Your task to perform on an android device: Search for "alienware aurora" on costco.com, select the first entry, add it to the cart, then select checkout. Image 0: 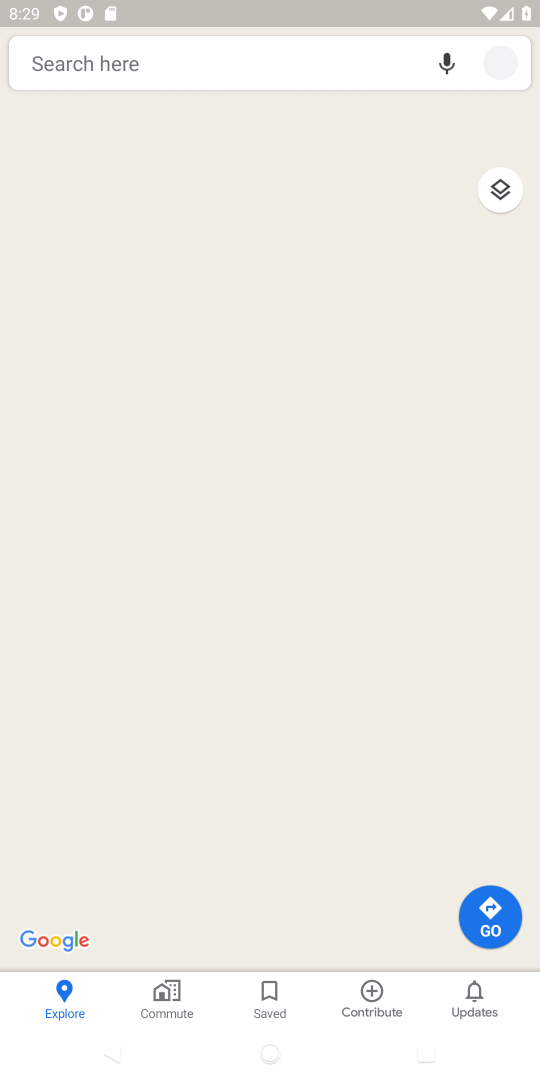
Step 0: press home button
Your task to perform on an android device: Search for "alienware aurora" on costco.com, select the first entry, add it to the cart, then select checkout. Image 1: 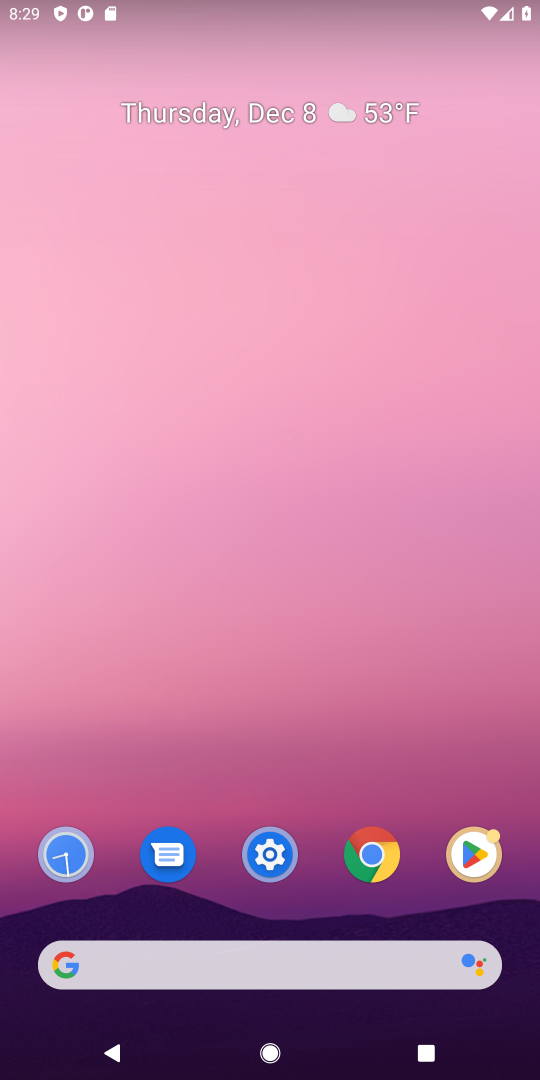
Step 1: press home button
Your task to perform on an android device: Search for "alienware aurora" on costco.com, select the first entry, add it to the cart, then select checkout. Image 2: 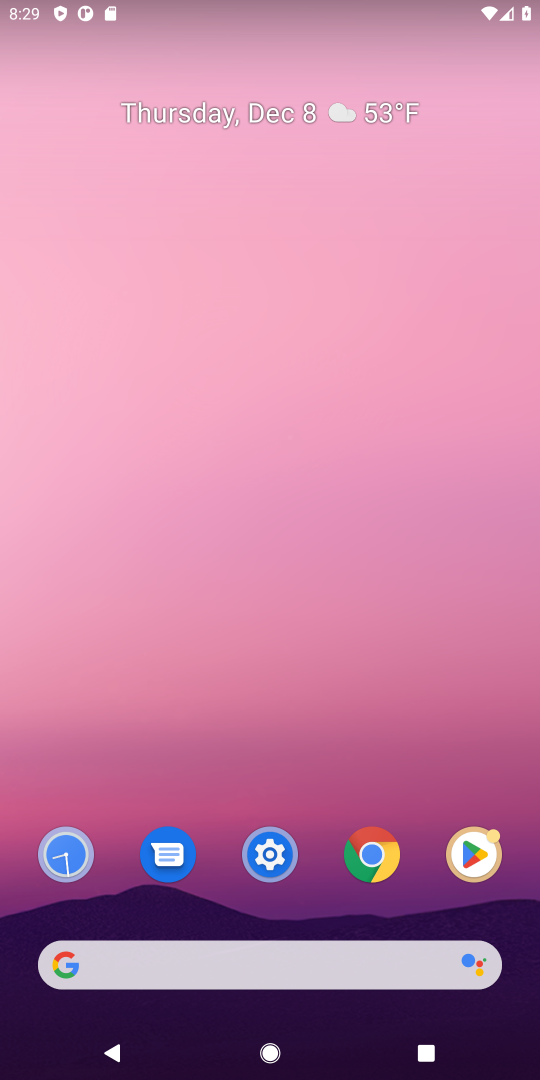
Step 2: click (96, 964)
Your task to perform on an android device: Search for "alienware aurora" on costco.com, select the first entry, add it to the cart, then select checkout. Image 3: 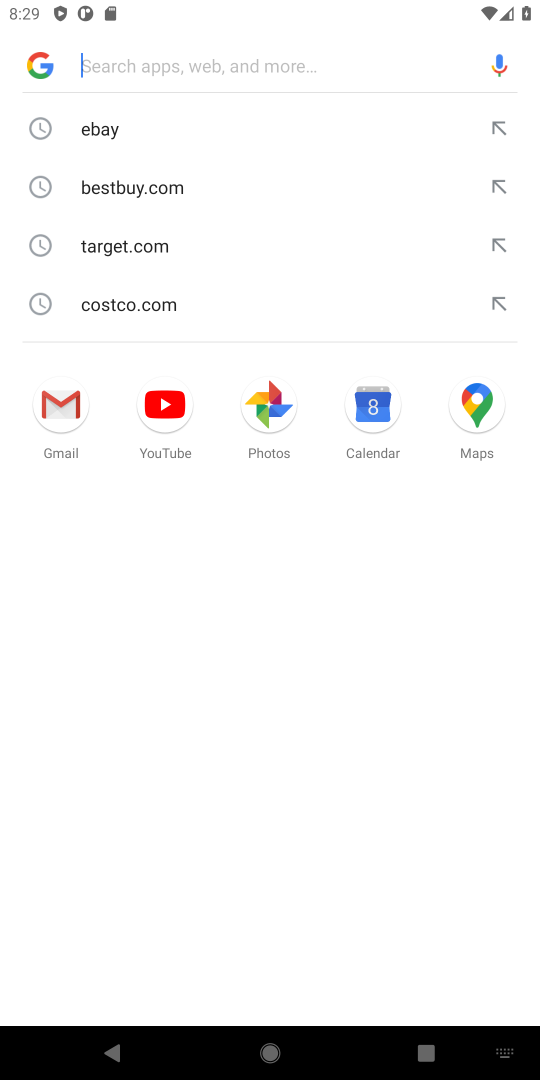
Step 3: type "costco.com"
Your task to perform on an android device: Search for "alienware aurora" on costco.com, select the first entry, add it to the cart, then select checkout. Image 4: 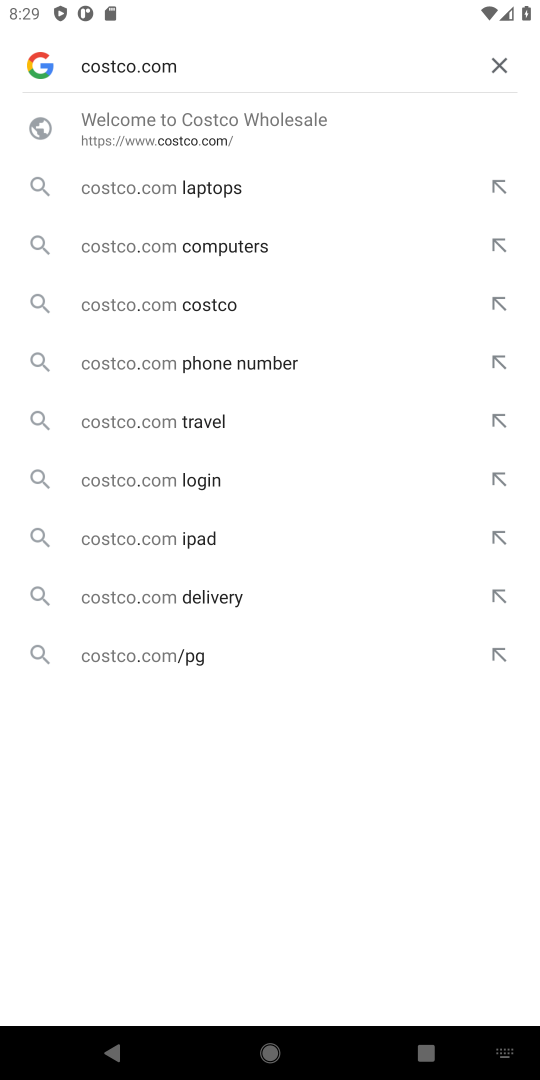
Step 4: press enter
Your task to perform on an android device: Search for "alienware aurora" on costco.com, select the first entry, add it to the cart, then select checkout. Image 5: 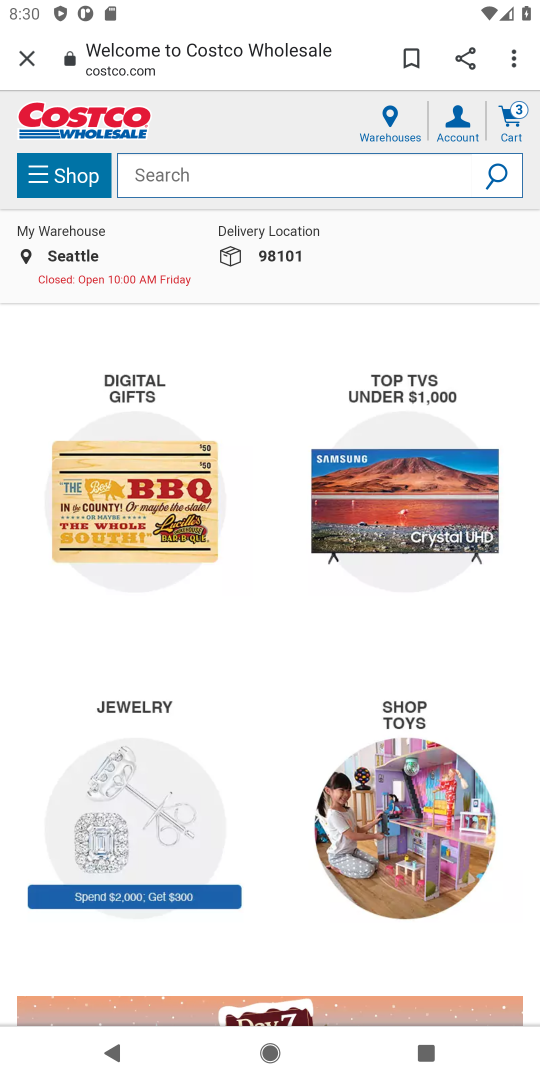
Step 5: click (178, 176)
Your task to perform on an android device: Search for "alienware aurora" on costco.com, select the first entry, add it to the cart, then select checkout. Image 6: 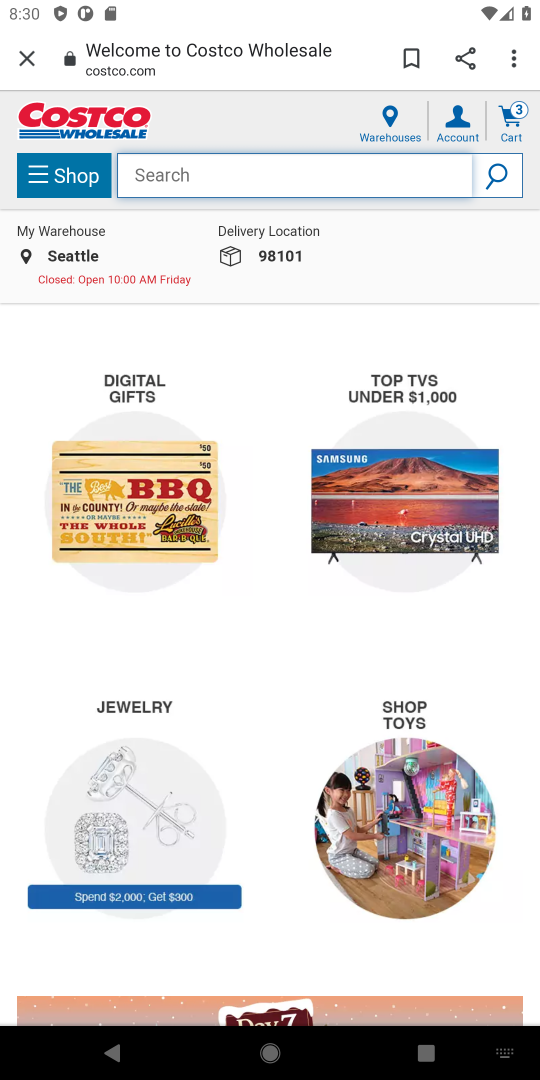
Step 6: press enter
Your task to perform on an android device: Search for "alienware aurora" on costco.com, select the first entry, add it to the cart, then select checkout. Image 7: 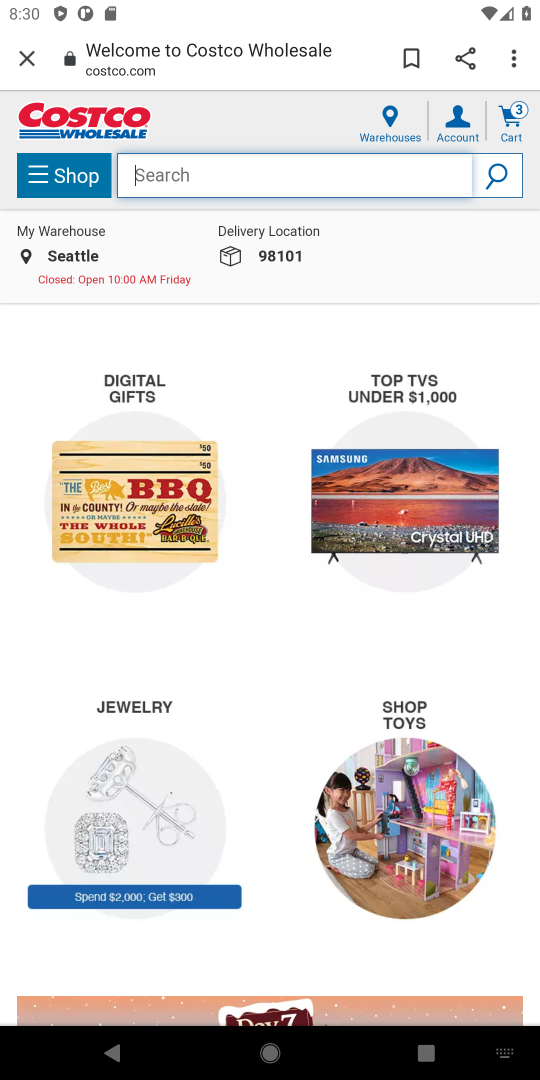
Step 7: type "alienware aurora"
Your task to perform on an android device: Search for "alienware aurora" on costco.com, select the first entry, add it to the cart, then select checkout. Image 8: 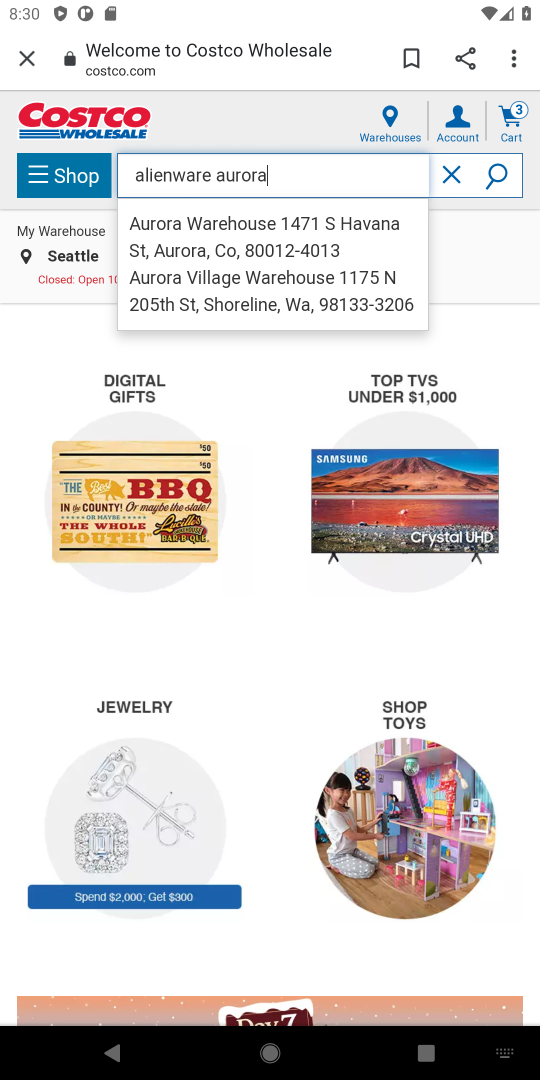
Step 8: press enter
Your task to perform on an android device: Search for "alienware aurora" on costco.com, select the first entry, add it to the cart, then select checkout. Image 9: 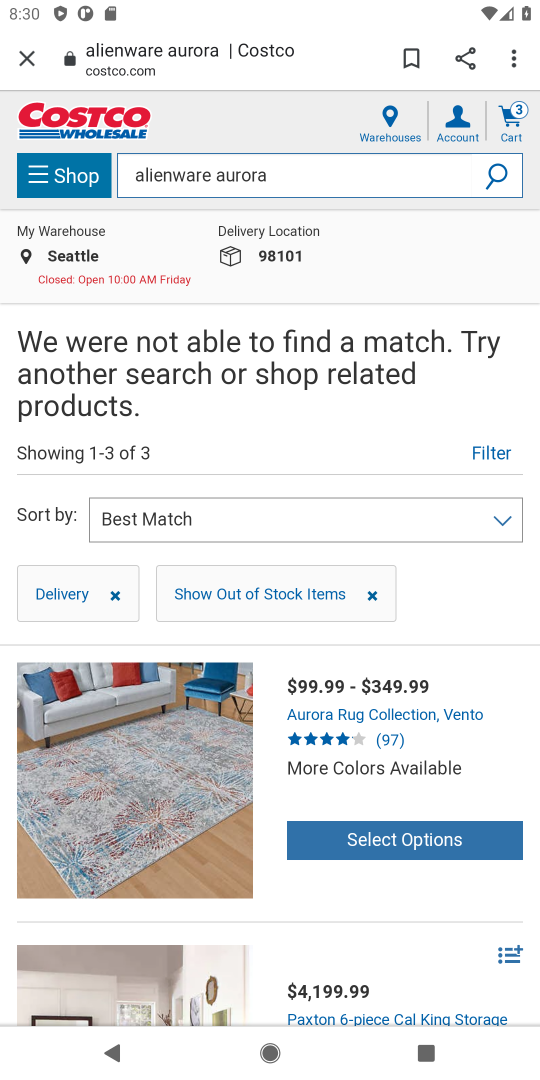
Step 9: task complete